Your task to perform on an android device: Do I have any events today? Image 0: 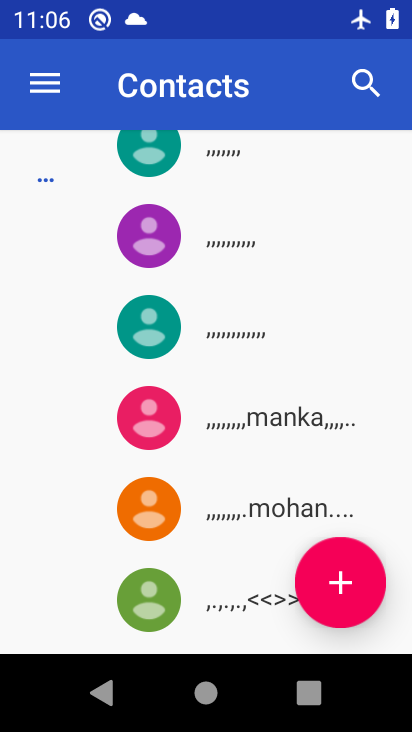
Step 0: drag from (220, 569) to (218, 195)
Your task to perform on an android device: Do I have any events today? Image 1: 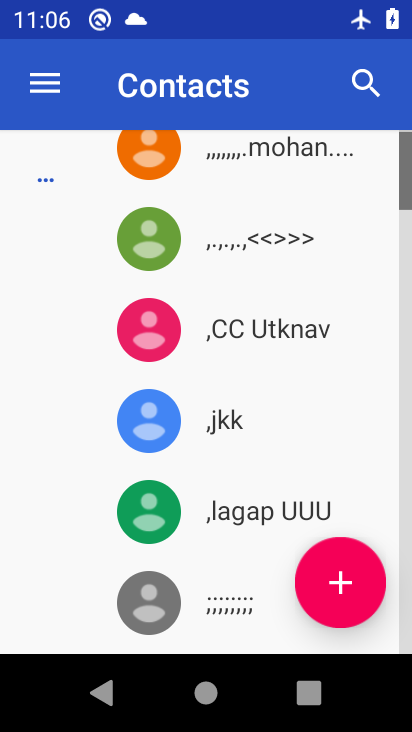
Step 1: drag from (229, 227) to (216, 711)
Your task to perform on an android device: Do I have any events today? Image 2: 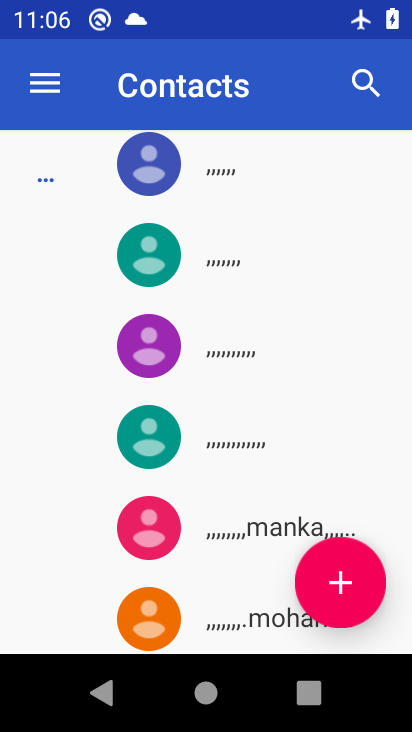
Step 2: press home button
Your task to perform on an android device: Do I have any events today? Image 3: 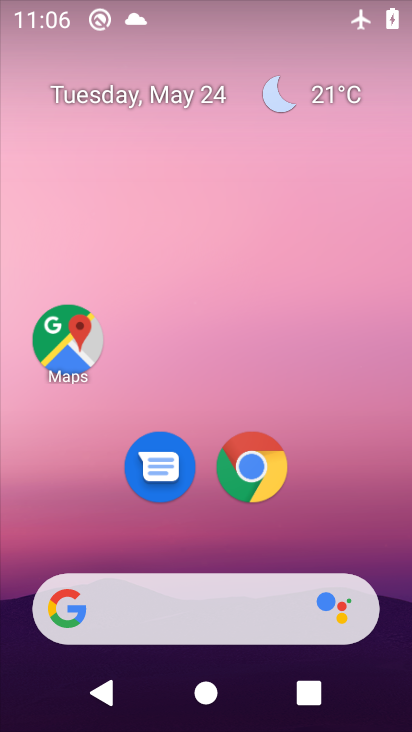
Step 3: drag from (221, 551) to (248, 87)
Your task to perform on an android device: Do I have any events today? Image 4: 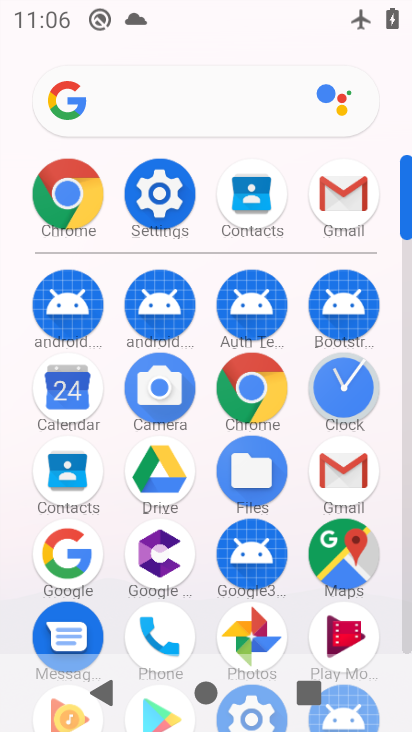
Step 4: click (66, 392)
Your task to perform on an android device: Do I have any events today? Image 5: 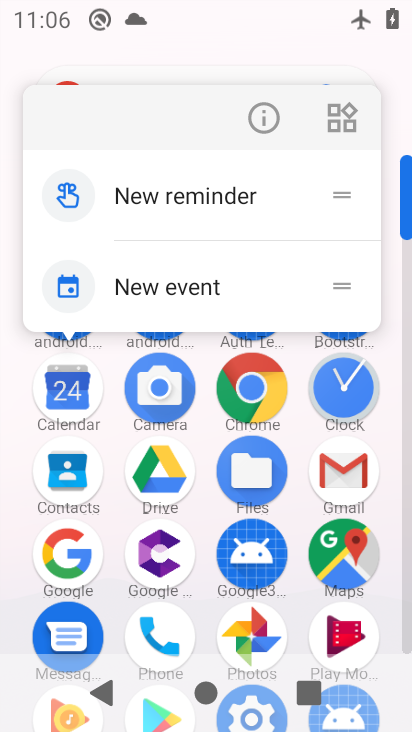
Step 5: click (269, 125)
Your task to perform on an android device: Do I have any events today? Image 6: 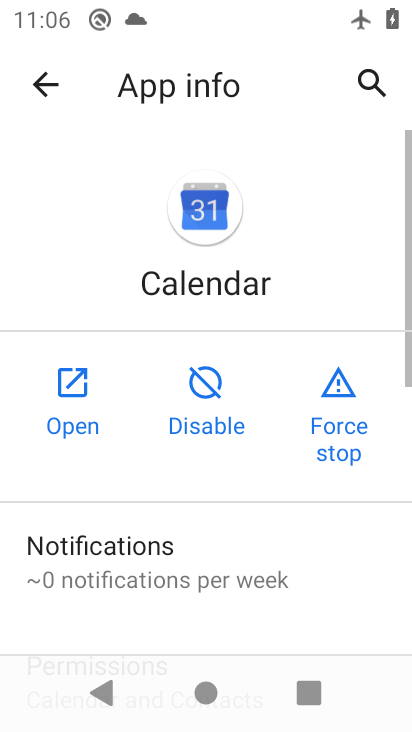
Step 6: click (68, 379)
Your task to perform on an android device: Do I have any events today? Image 7: 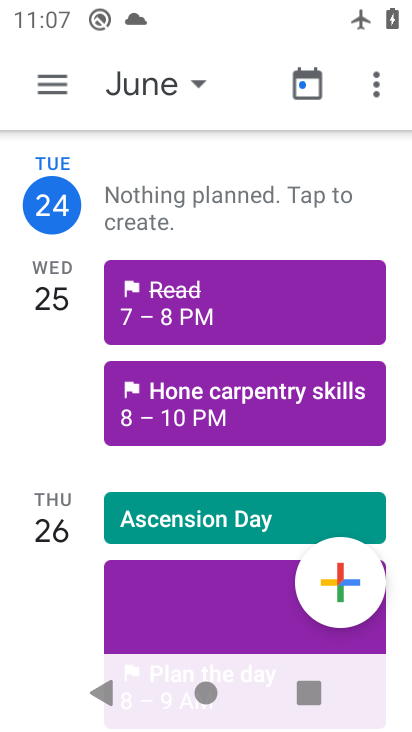
Step 7: drag from (234, 563) to (324, 186)
Your task to perform on an android device: Do I have any events today? Image 8: 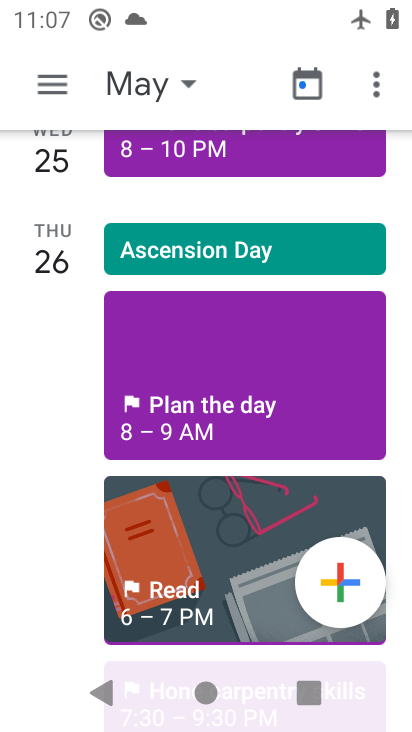
Step 8: click (161, 65)
Your task to perform on an android device: Do I have any events today? Image 9: 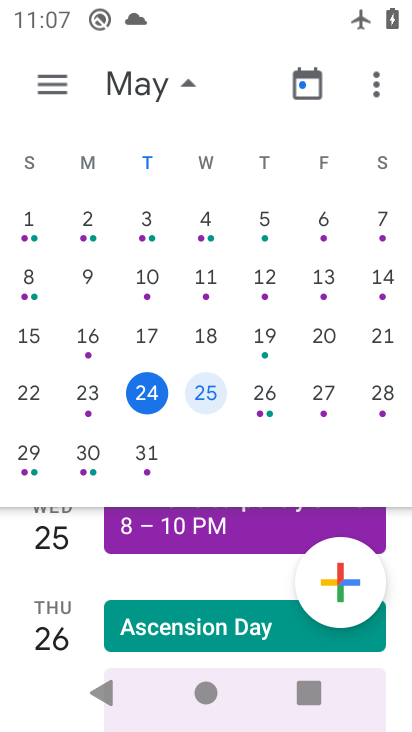
Step 9: click (133, 394)
Your task to perform on an android device: Do I have any events today? Image 10: 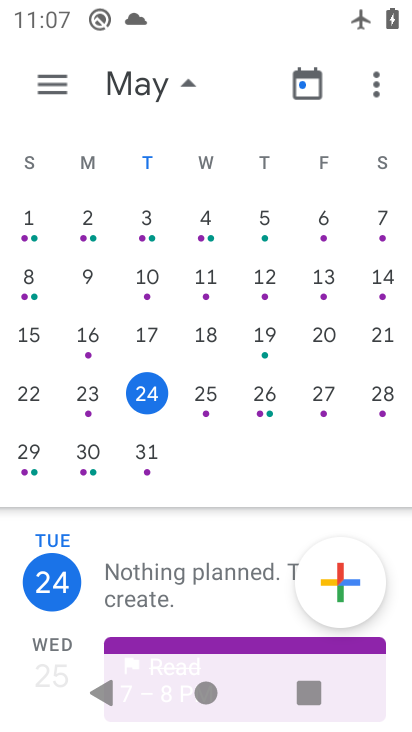
Step 10: task complete